Your task to perform on an android device: choose inbox layout in the gmail app Image 0: 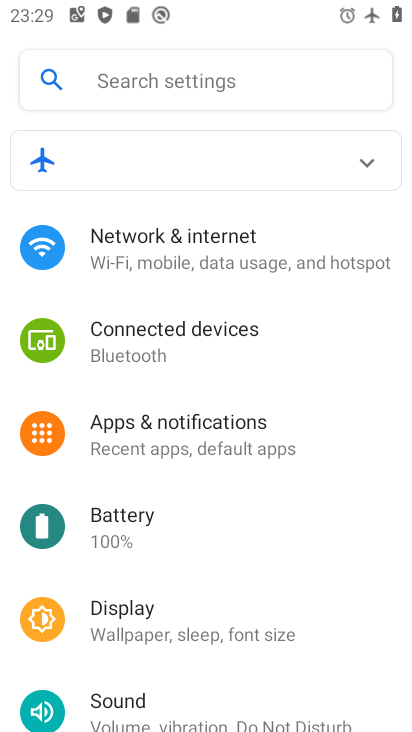
Step 0: press home button
Your task to perform on an android device: choose inbox layout in the gmail app Image 1: 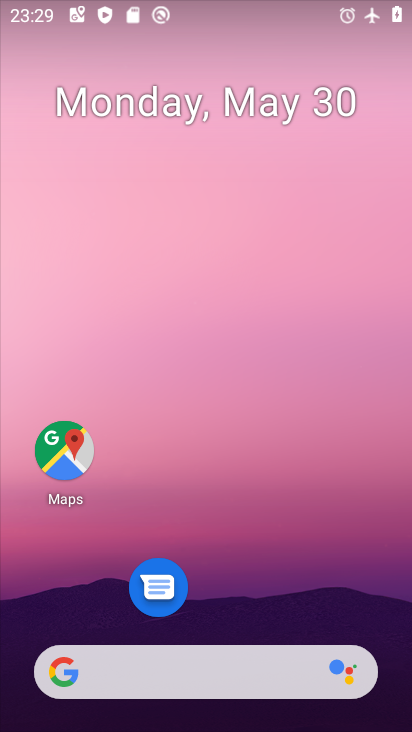
Step 1: drag from (222, 627) to (156, 16)
Your task to perform on an android device: choose inbox layout in the gmail app Image 2: 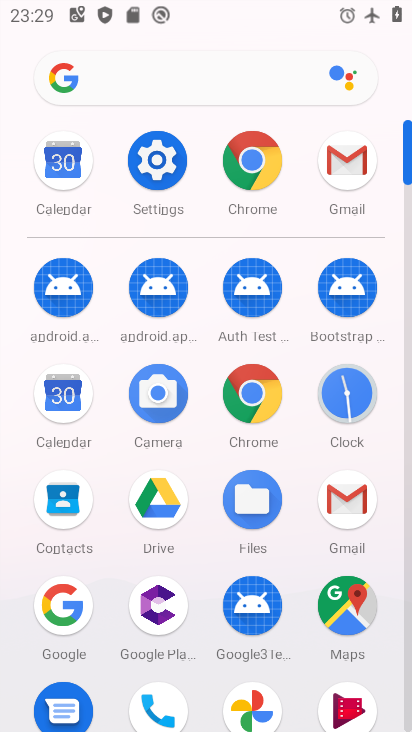
Step 2: click (344, 493)
Your task to perform on an android device: choose inbox layout in the gmail app Image 3: 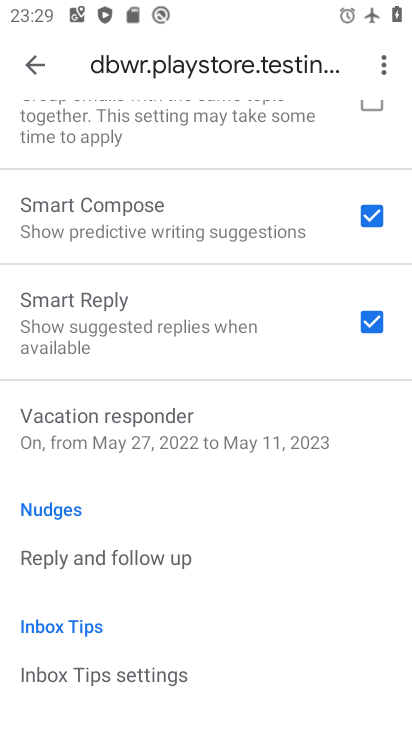
Step 3: drag from (235, 573) to (234, 93)
Your task to perform on an android device: choose inbox layout in the gmail app Image 4: 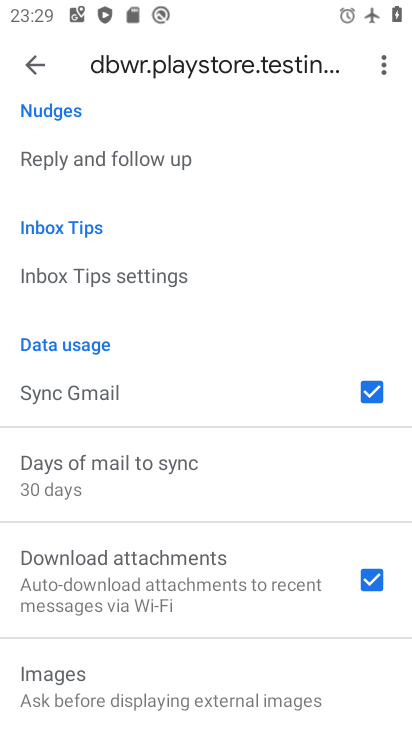
Step 4: drag from (105, 146) to (106, 726)
Your task to perform on an android device: choose inbox layout in the gmail app Image 5: 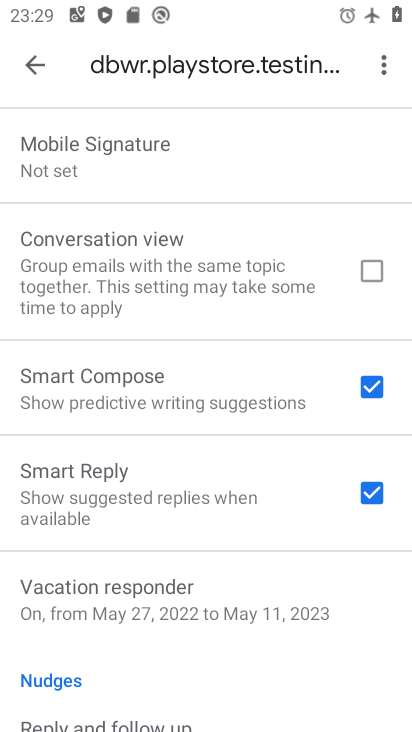
Step 5: drag from (165, 315) to (168, 713)
Your task to perform on an android device: choose inbox layout in the gmail app Image 6: 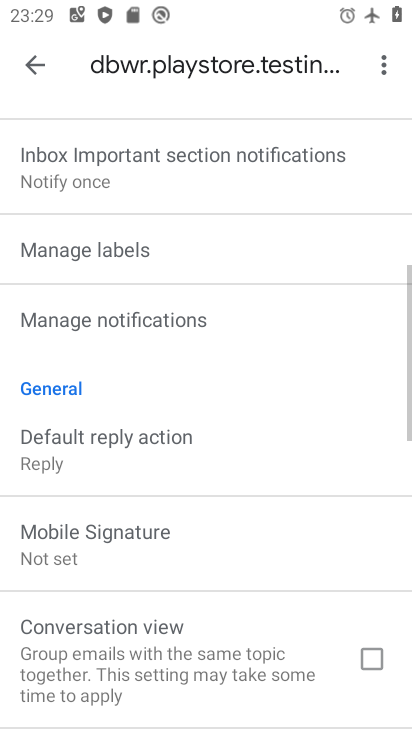
Step 6: drag from (111, 195) to (123, 594)
Your task to perform on an android device: choose inbox layout in the gmail app Image 7: 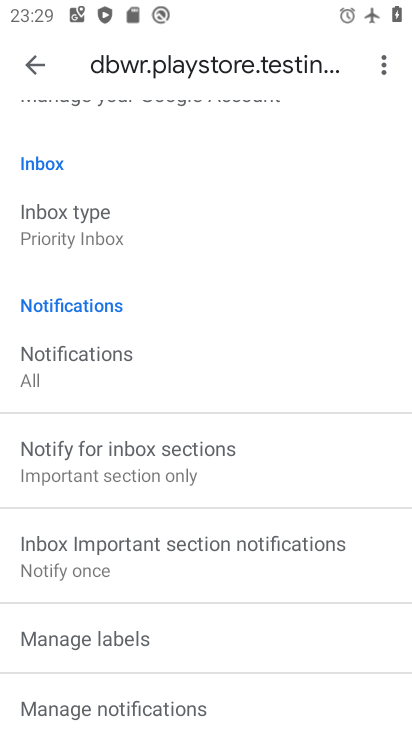
Step 7: click (66, 219)
Your task to perform on an android device: choose inbox layout in the gmail app Image 8: 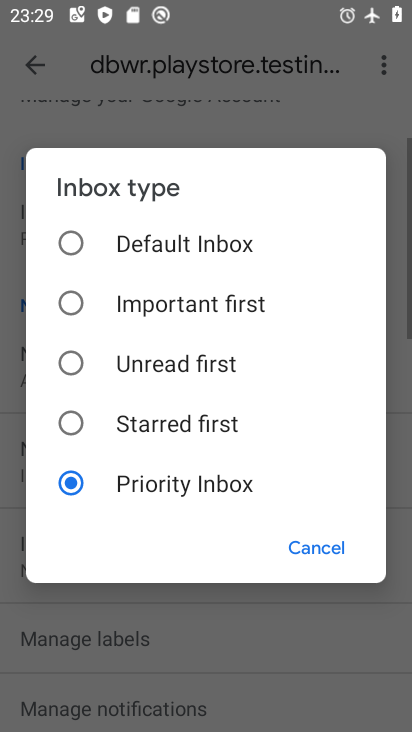
Step 8: click (116, 238)
Your task to perform on an android device: choose inbox layout in the gmail app Image 9: 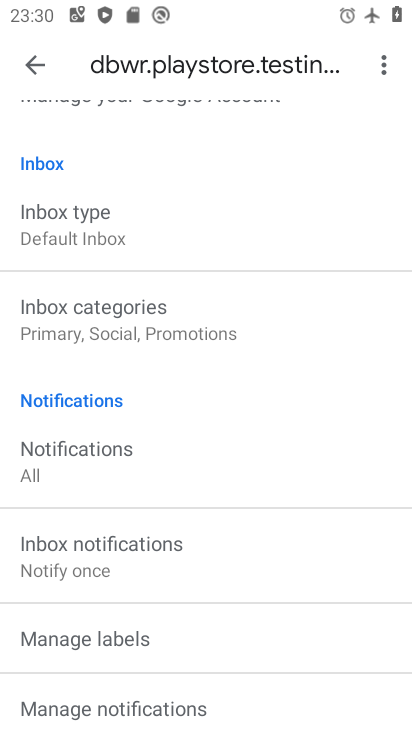
Step 9: click (108, 214)
Your task to perform on an android device: choose inbox layout in the gmail app Image 10: 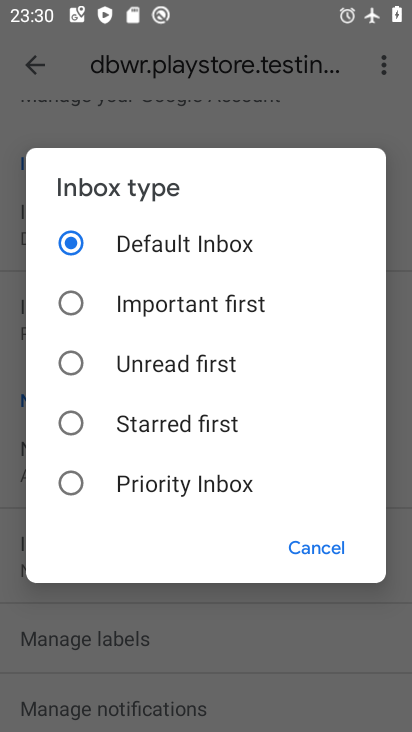
Step 10: click (164, 494)
Your task to perform on an android device: choose inbox layout in the gmail app Image 11: 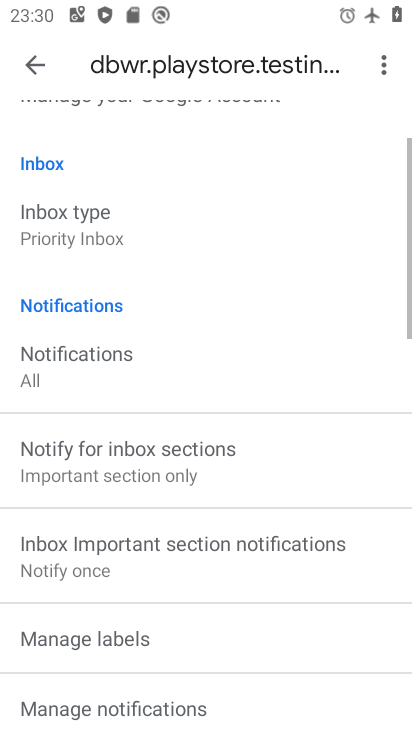
Step 11: click (39, 70)
Your task to perform on an android device: choose inbox layout in the gmail app Image 12: 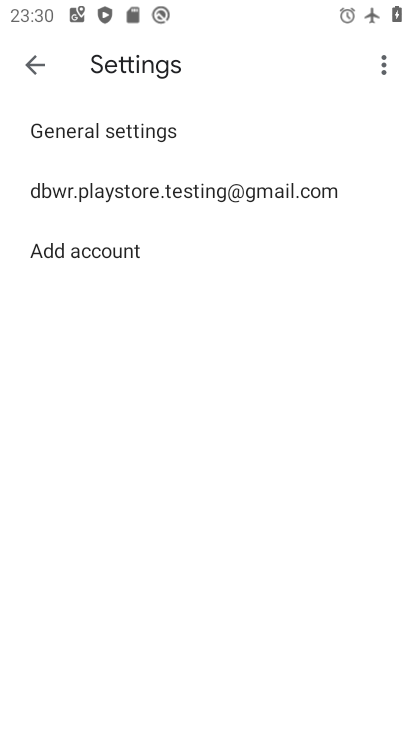
Step 12: click (53, 64)
Your task to perform on an android device: choose inbox layout in the gmail app Image 13: 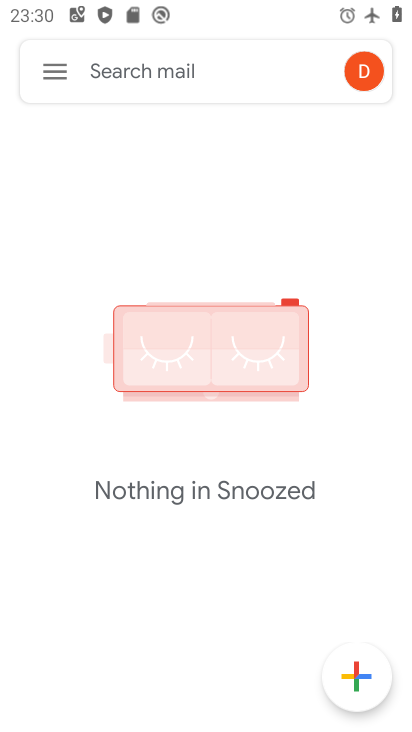
Step 13: click (62, 60)
Your task to perform on an android device: choose inbox layout in the gmail app Image 14: 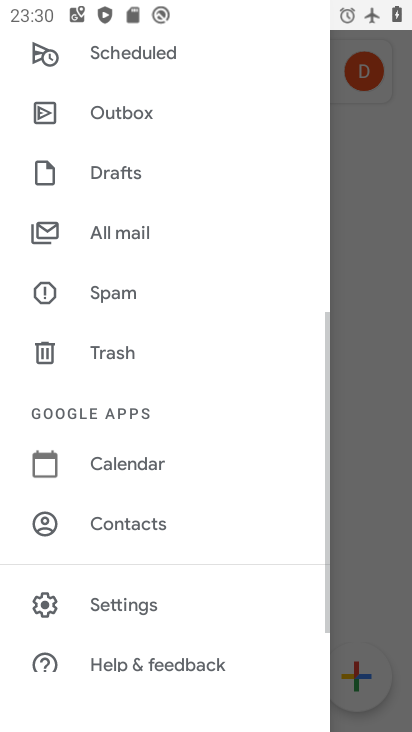
Step 14: drag from (113, 137) to (113, 485)
Your task to perform on an android device: choose inbox layout in the gmail app Image 15: 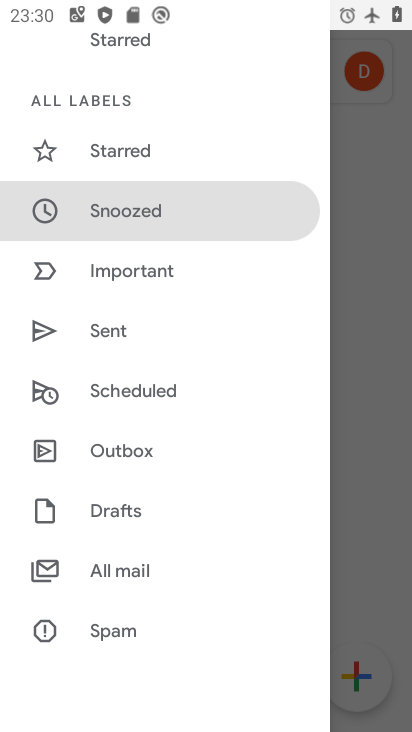
Step 15: drag from (134, 142) to (119, 582)
Your task to perform on an android device: choose inbox layout in the gmail app Image 16: 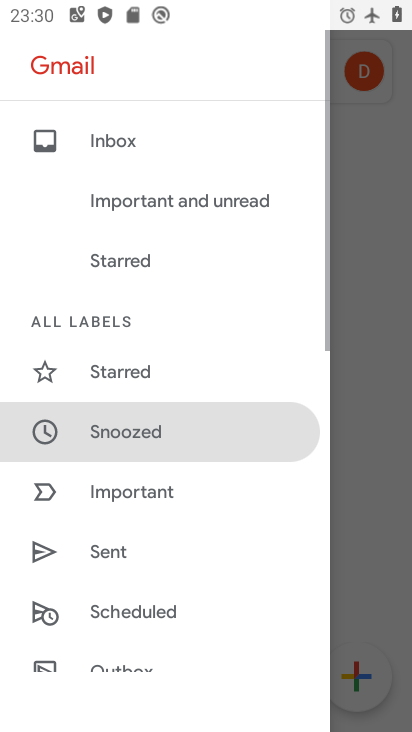
Step 16: click (95, 150)
Your task to perform on an android device: choose inbox layout in the gmail app Image 17: 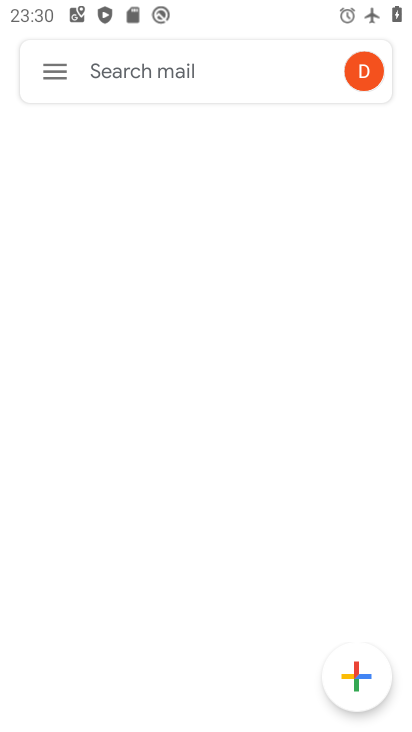
Step 17: task complete